Your task to perform on an android device: Go to privacy settings Image 0: 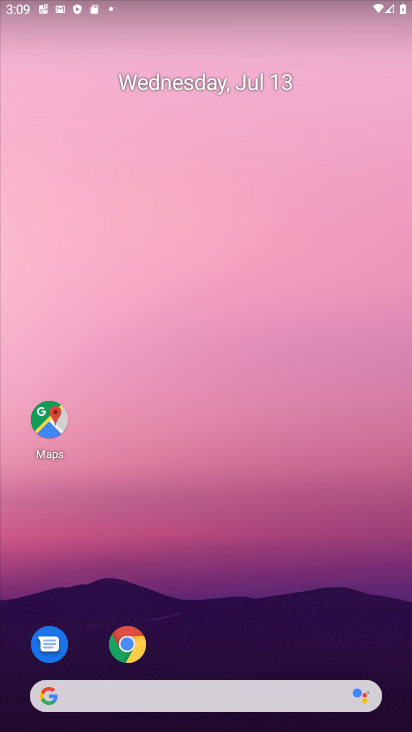
Step 0: drag from (107, 544) to (283, 210)
Your task to perform on an android device: Go to privacy settings Image 1: 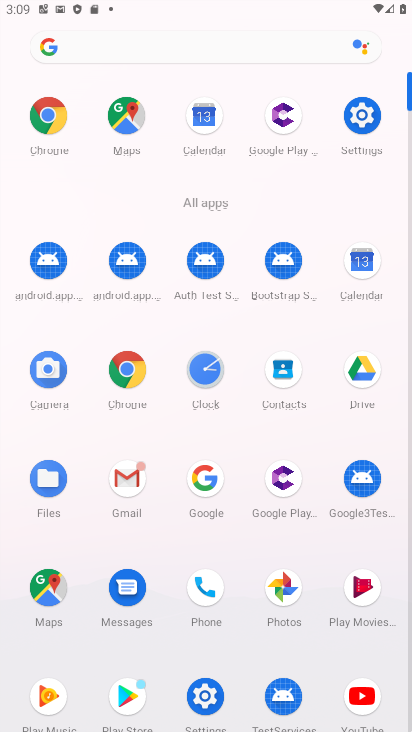
Step 1: click (203, 698)
Your task to perform on an android device: Go to privacy settings Image 2: 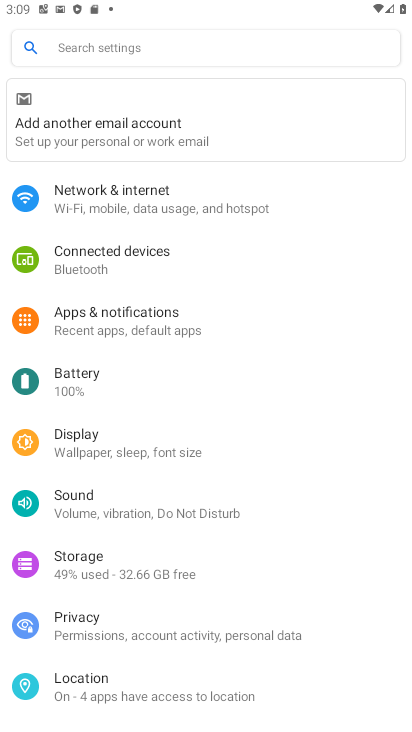
Step 2: click (110, 623)
Your task to perform on an android device: Go to privacy settings Image 3: 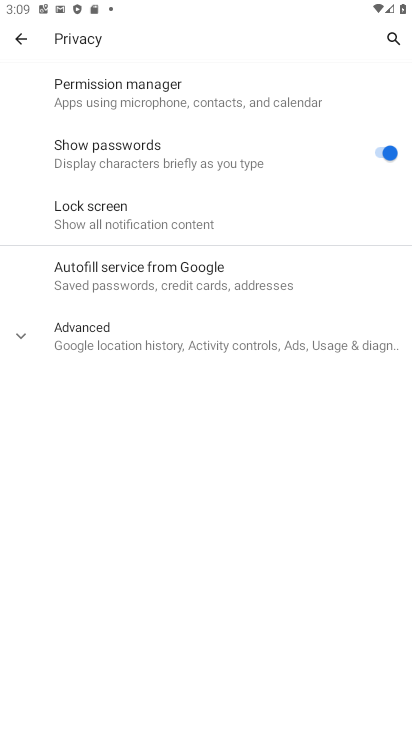
Step 3: task complete